Your task to perform on an android device: Open battery settings Image 0: 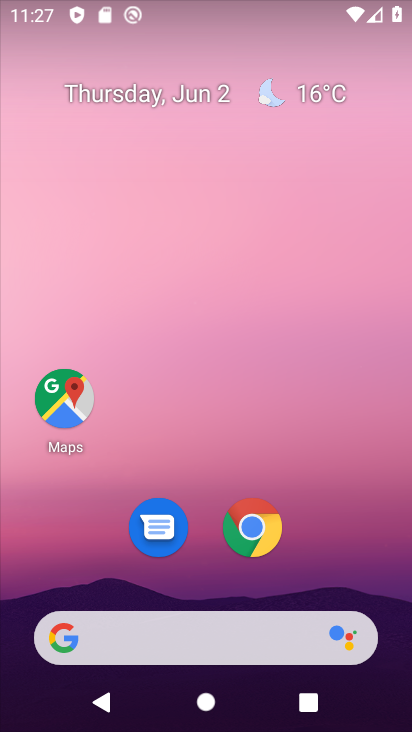
Step 0: drag from (183, 641) to (140, 358)
Your task to perform on an android device: Open battery settings Image 1: 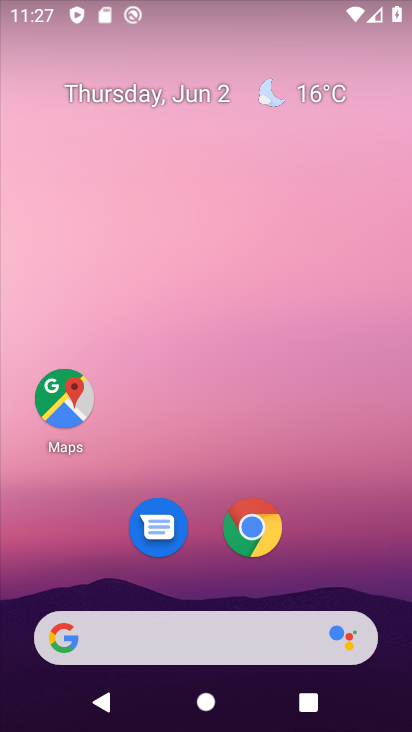
Step 1: drag from (182, 651) to (178, 338)
Your task to perform on an android device: Open battery settings Image 2: 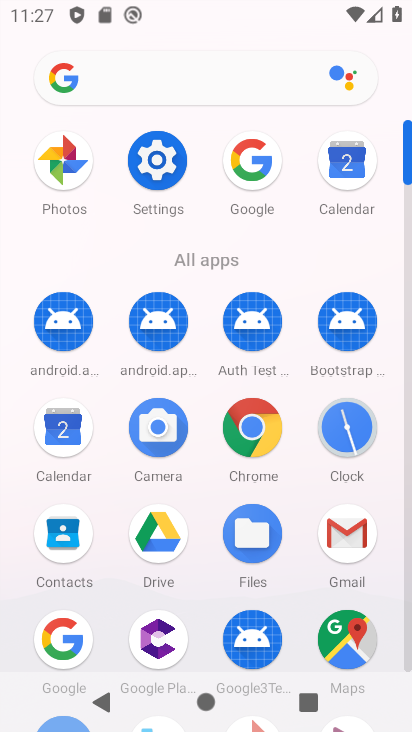
Step 2: click (157, 167)
Your task to perform on an android device: Open battery settings Image 3: 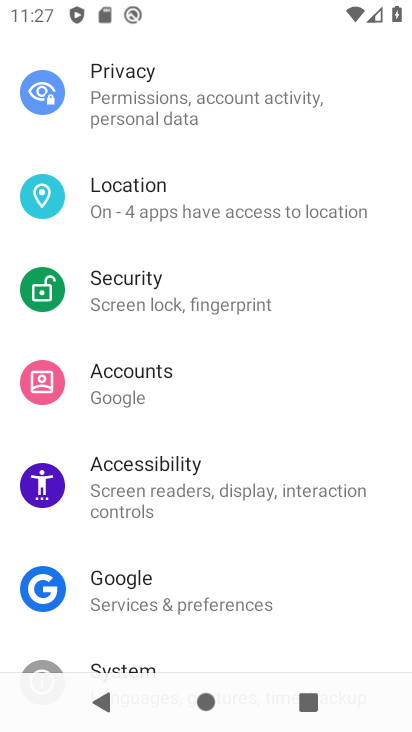
Step 3: drag from (149, 249) to (137, 586)
Your task to perform on an android device: Open battery settings Image 4: 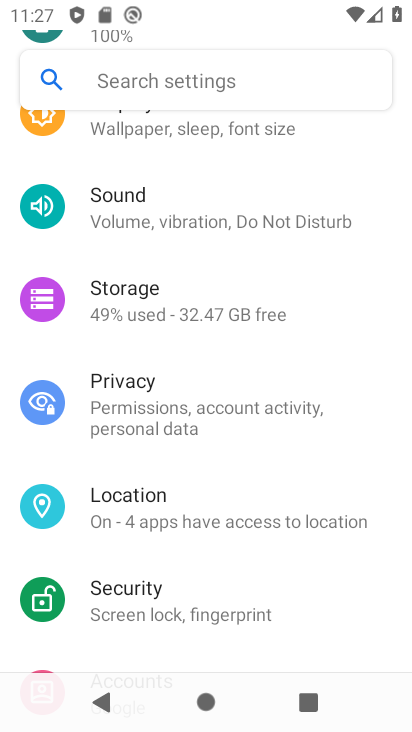
Step 4: drag from (189, 209) to (201, 477)
Your task to perform on an android device: Open battery settings Image 5: 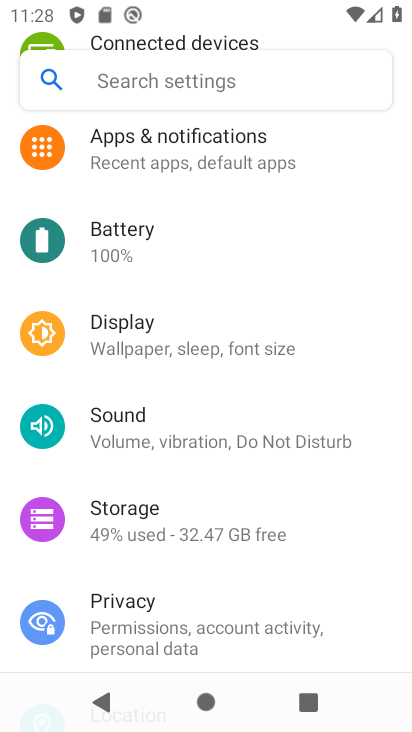
Step 5: click (113, 255)
Your task to perform on an android device: Open battery settings Image 6: 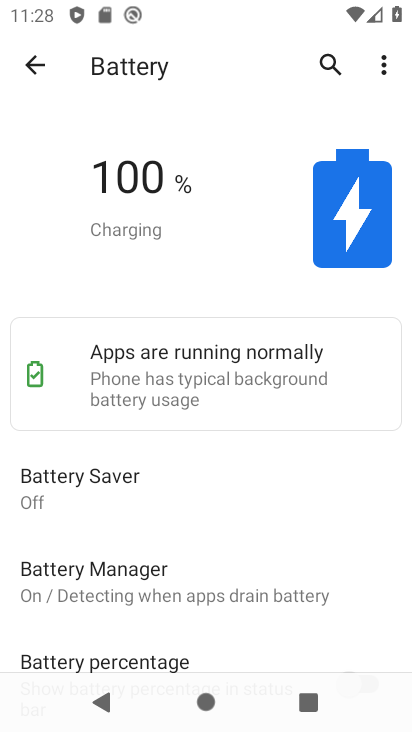
Step 6: task complete